Your task to perform on an android device: empty trash in the gmail app Image 0: 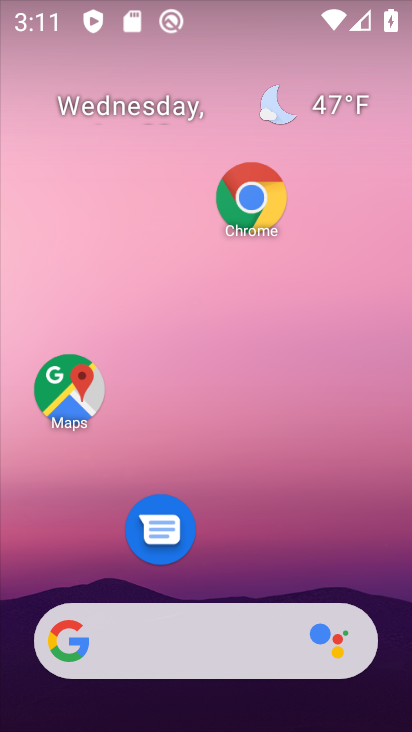
Step 0: drag from (238, 316) to (230, 26)
Your task to perform on an android device: empty trash in the gmail app Image 1: 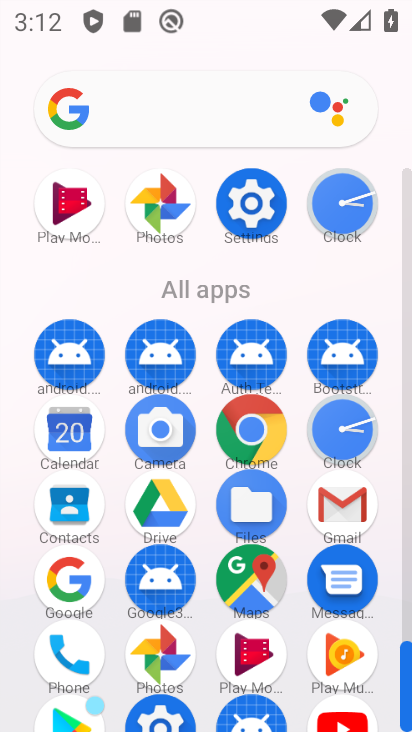
Step 1: click (332, 506)
Your task to perform on an android device: empty trash in the gmail app Image 2: 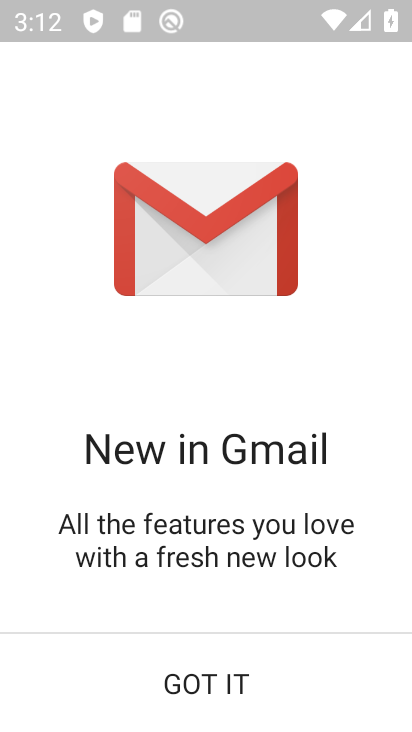
Step 2: click (240, 676)
Your task to perform on an android device: empty trash in the gmail app Image 3: 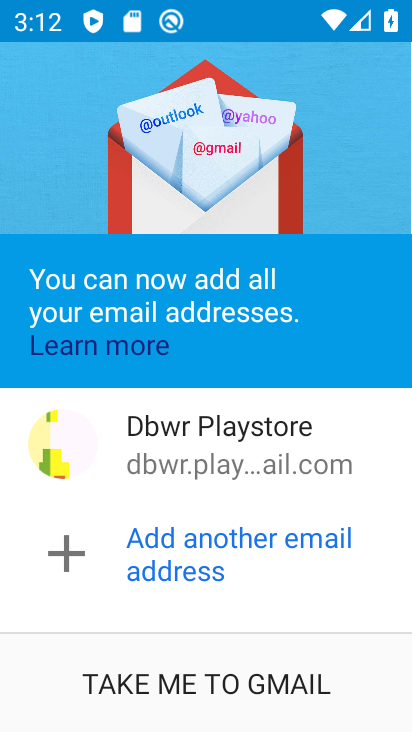
Step 3: click (255, 680)
Your task to perform on an android device: empty trash in the gmail app Image 4: 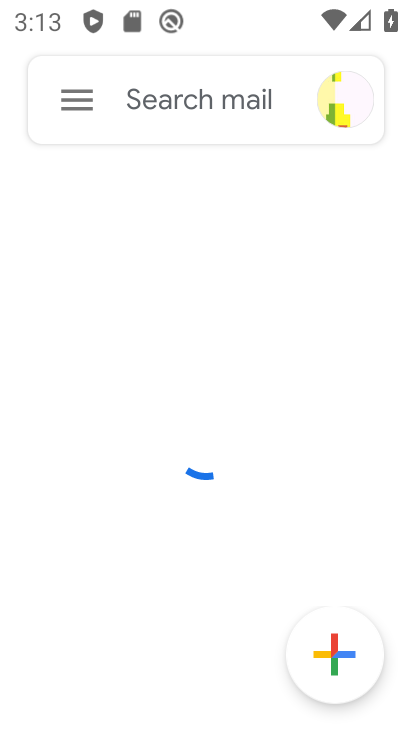
Step 4: click (75, 101)
Your task to perform on an android device: empty trash in the gmail app Image 5: 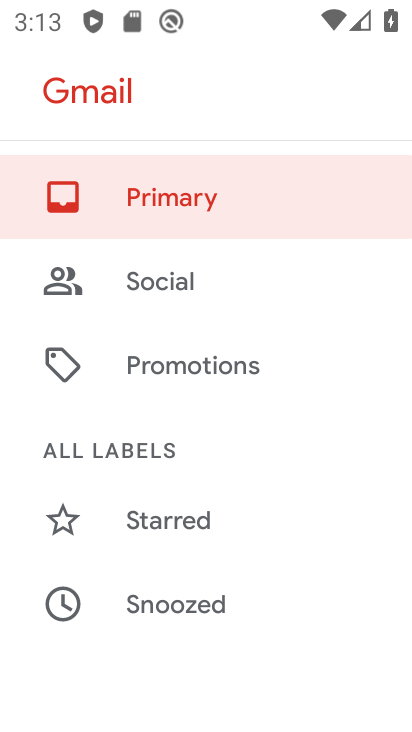
Step 5: drag from (252, 593) to (247, 219)
Your task to perform on an android device: empty trash in the gmail app Image 6: 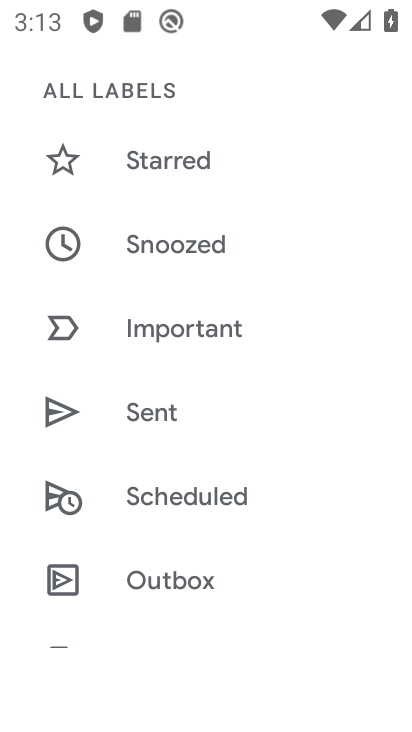
Step 6: drag from (242, 507) to (235, 176)
Your task to perform on an android device: empty trash in the gmail app Image 7: 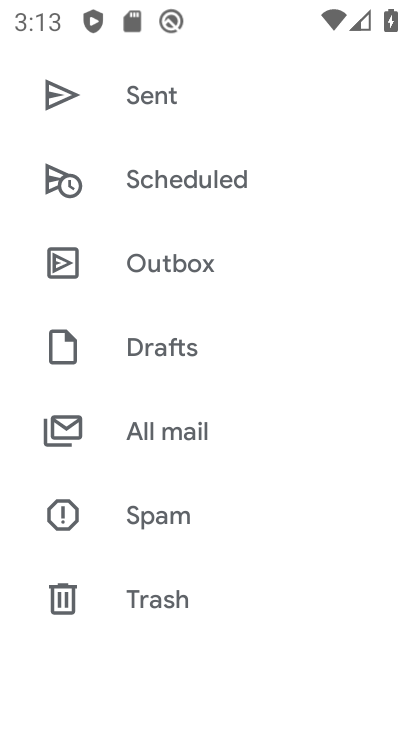
Step 7: click (148, 597)
Your task to perform on an android device: empty trash in the gmail app Image 8: 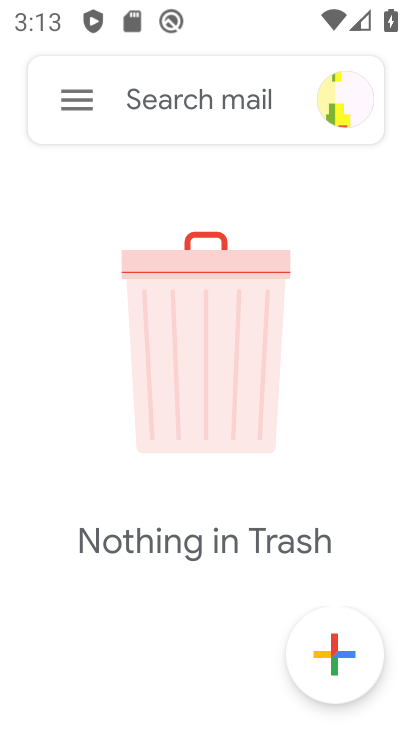
Step 8: task complete